Your task to perform on an android device: check battery use Image 0: 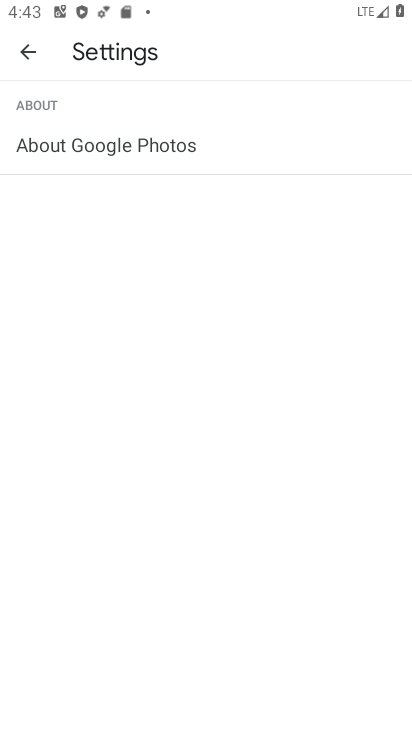
Step 0: press home button
Your task to perform on an android device: check battery use Image 1: 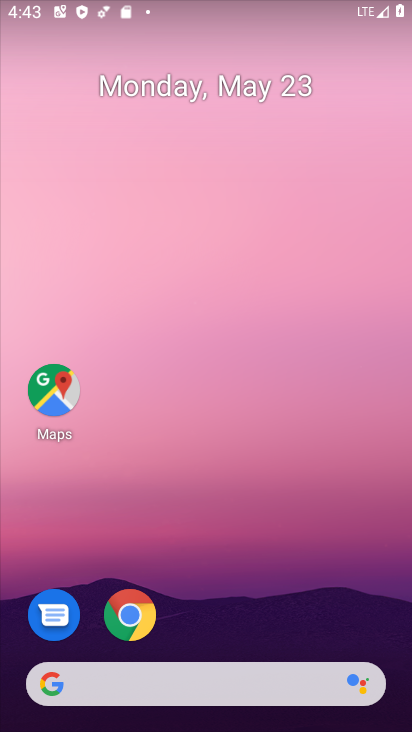
Step 1: drag from (238, 614) to (227, 28)
Your task to perform on an android device: check battery use Image 2: 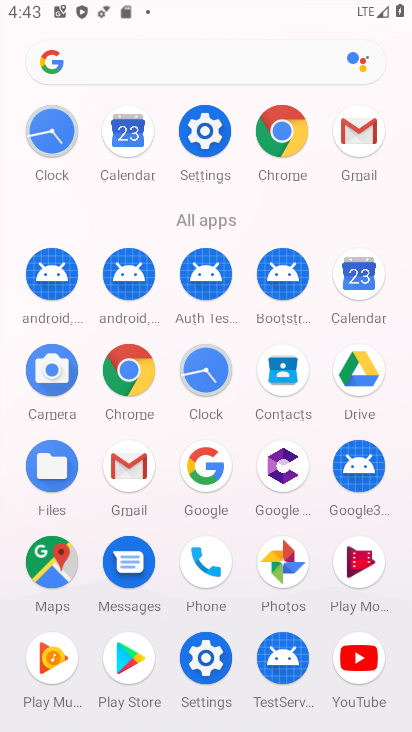
Step 2: click (198, 141)
Your task to perform on an android device: check battery use Image 3: 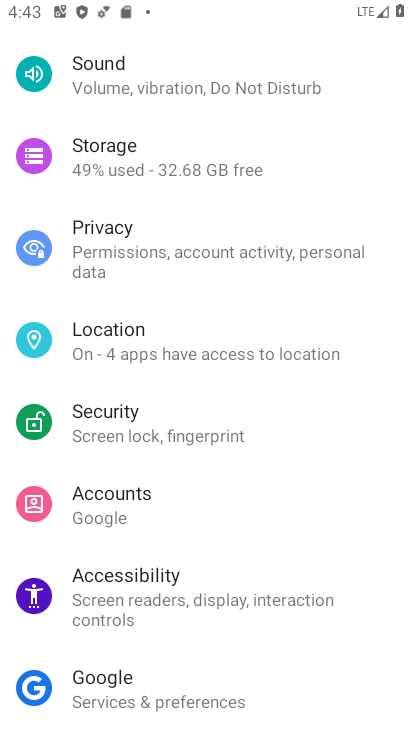
Step 3: drag from (226, 148) to (197, 663)
Your task to perform on an android device: check battery use Image 4: 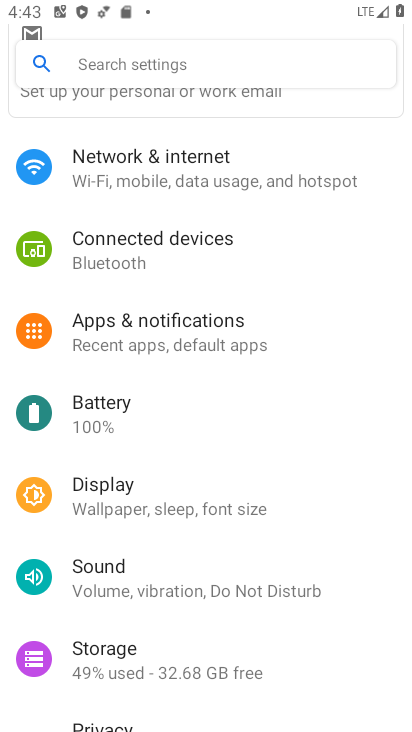
Step 4: click (86, 402)
Your task to perform on an android device: check battery use Image 5: 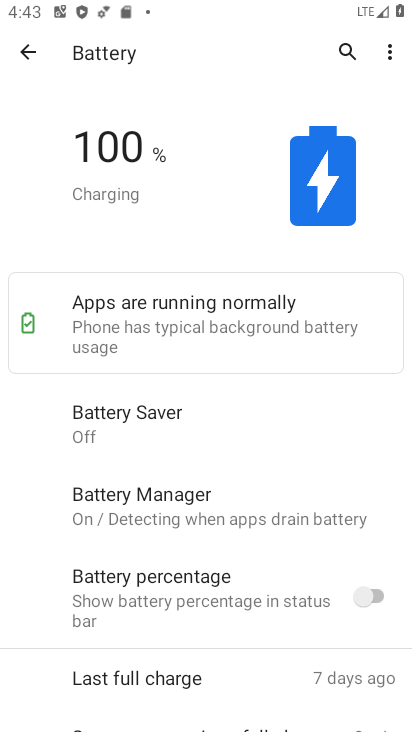
Step 5: task complete